Your task to perform on an android device: Clear all items from cart on target. Image 0: 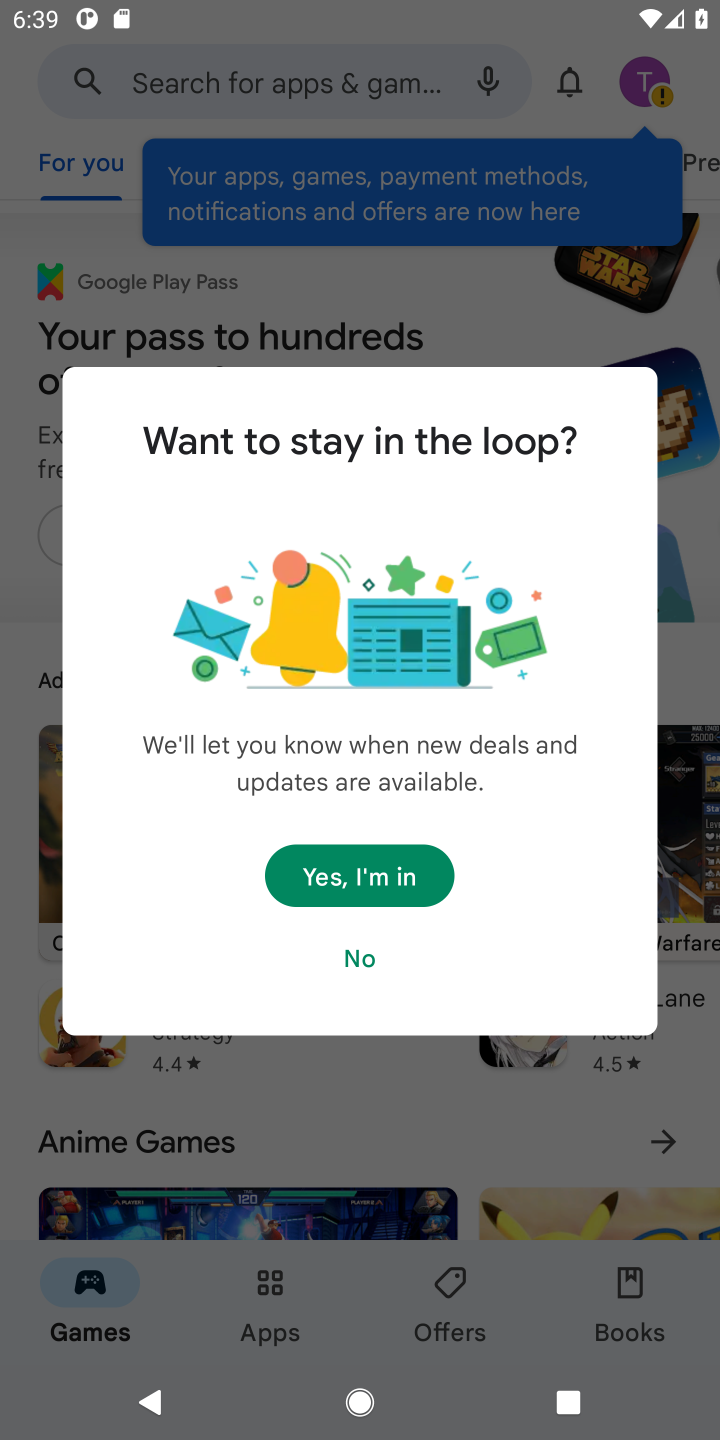
Step 0: press home button
Your task to perform on an android device: Clear all items from cart on target. Image 1: 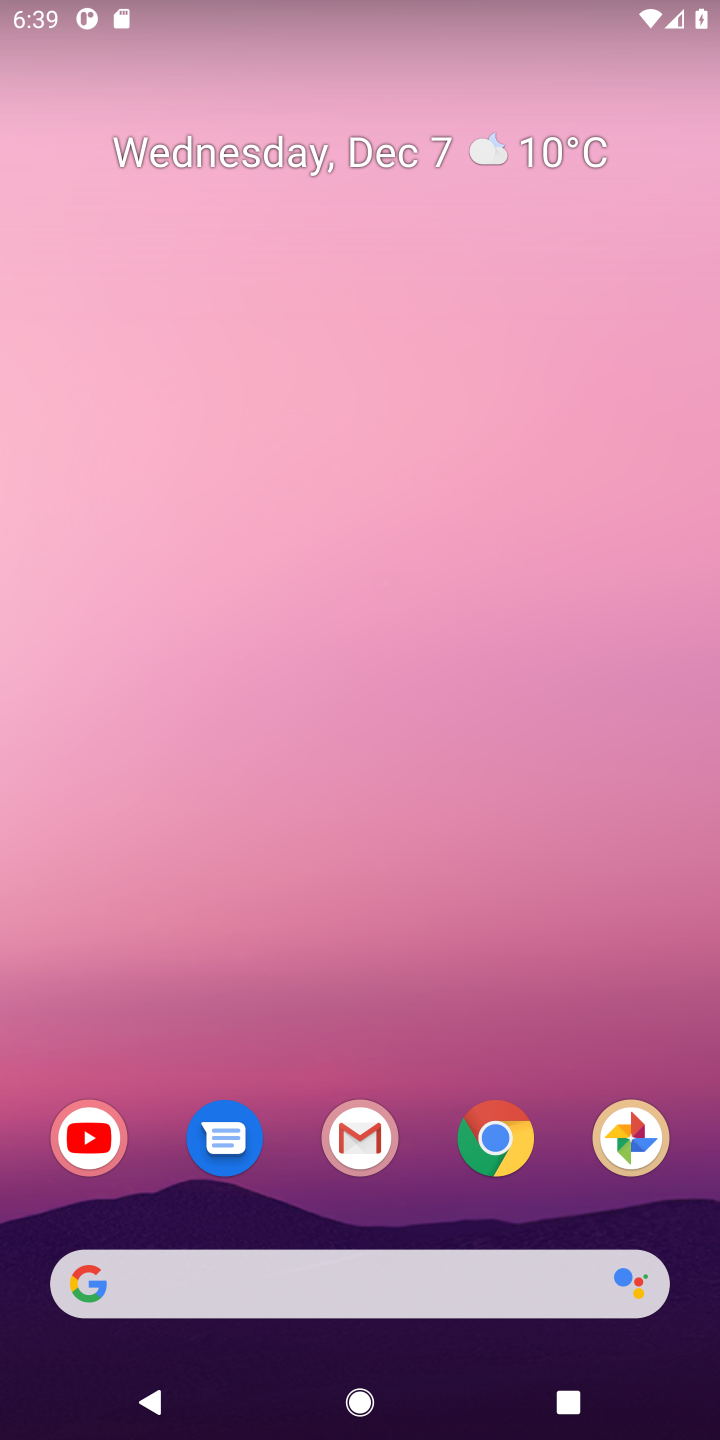
Step 1: click (175, 1280)
Your task to perform on an android device: Clear all items from cart on target. Image 2: 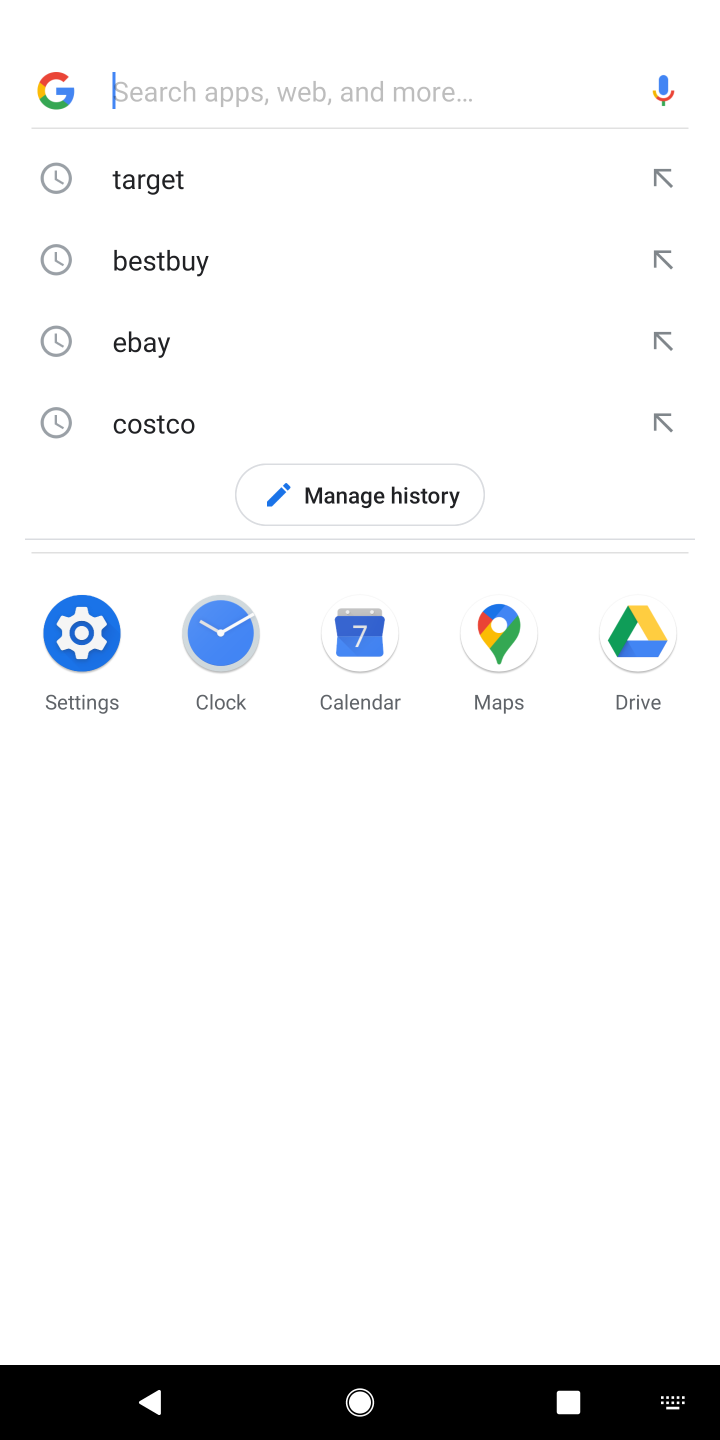
Step 2: press enter
Your task to perform on an android device: Clear all items from cart on target. Image 3: 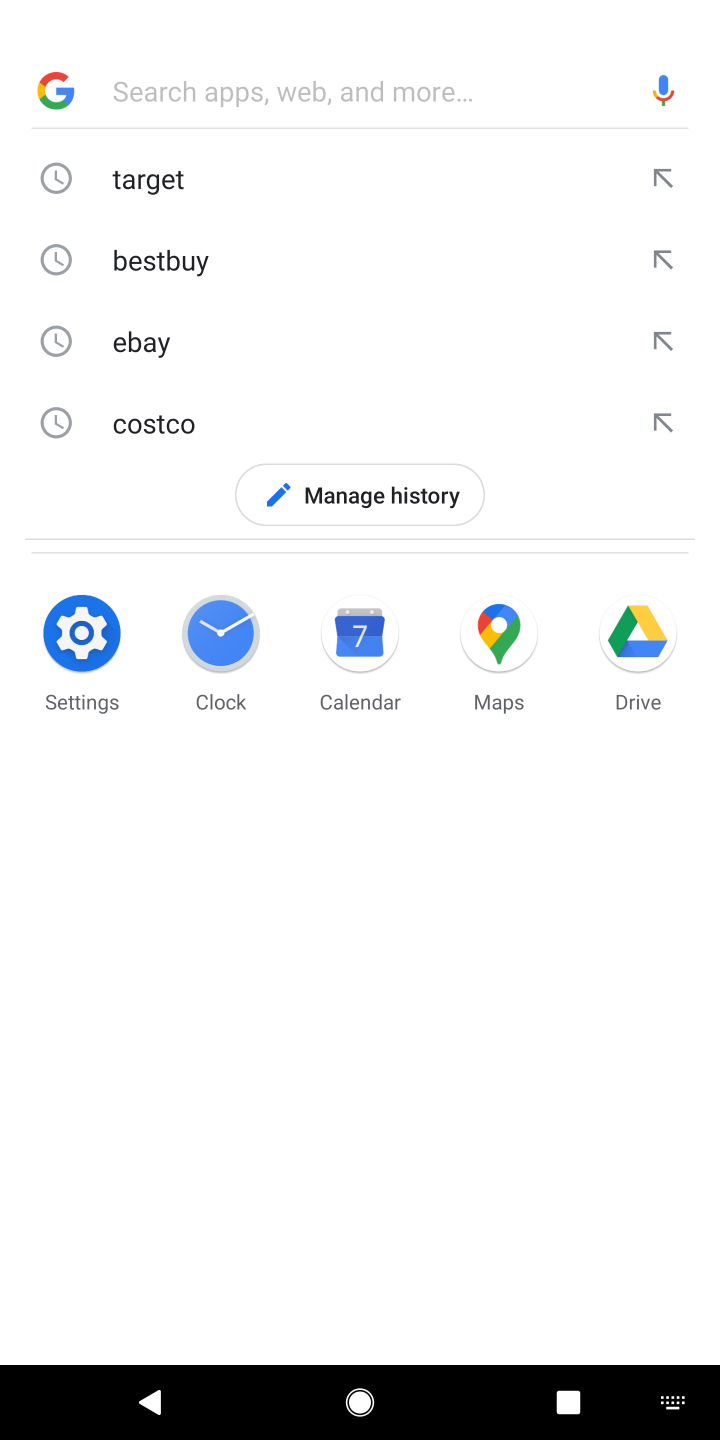
Step 3: type "target"
Your task to perform on an android device: Clear all items from cart on target. Image 4: 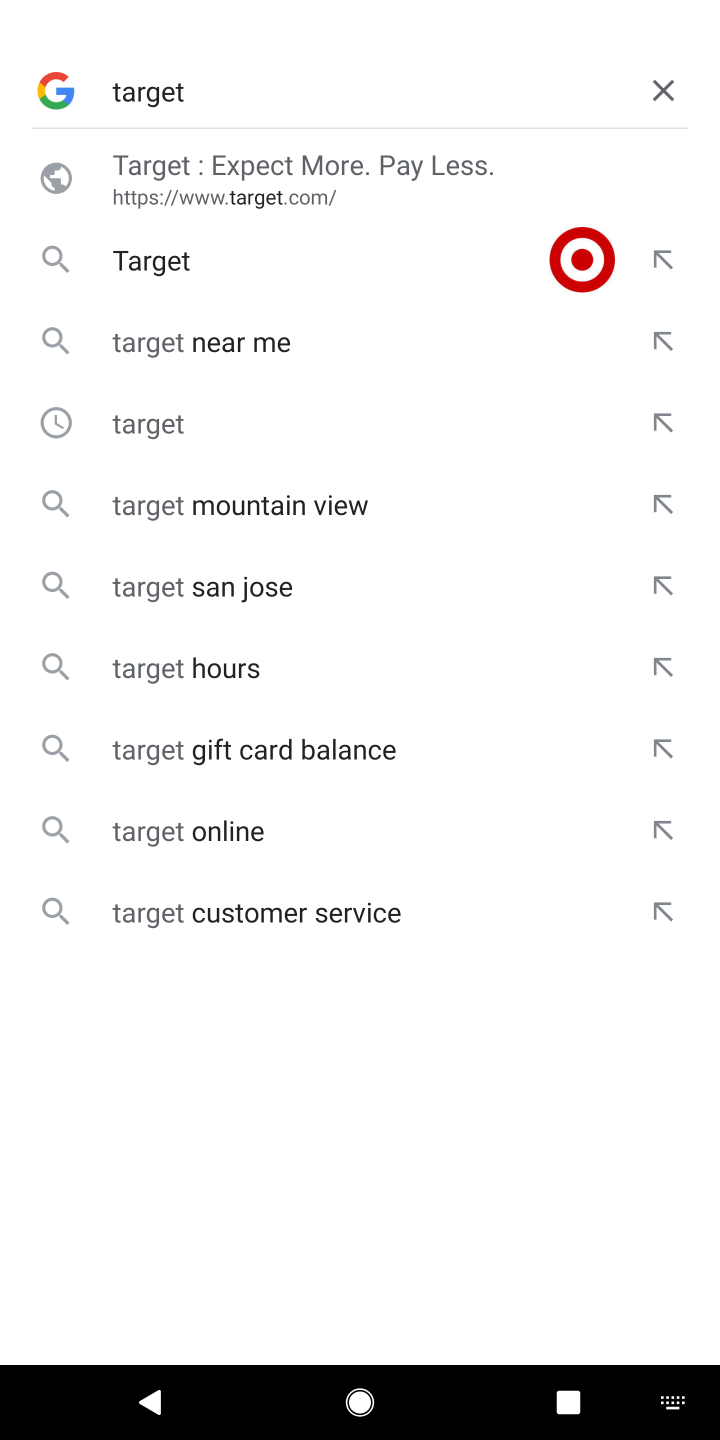
Step 4: press enter
Your task to perform on an android device: Clear all items from cart on target. Image 5: 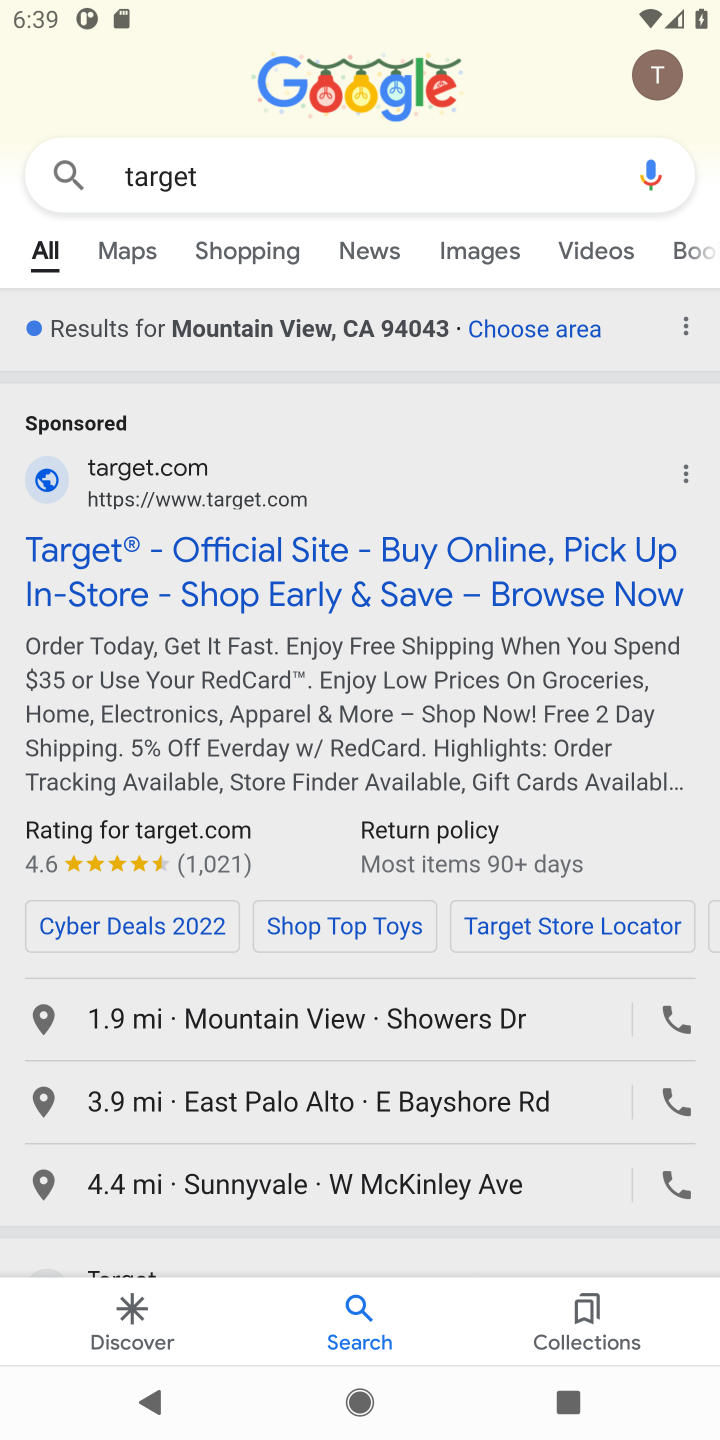
Step 5: click (483, 576)
Your task to perform on an android device: Clear all items from cart on target. Image 6: 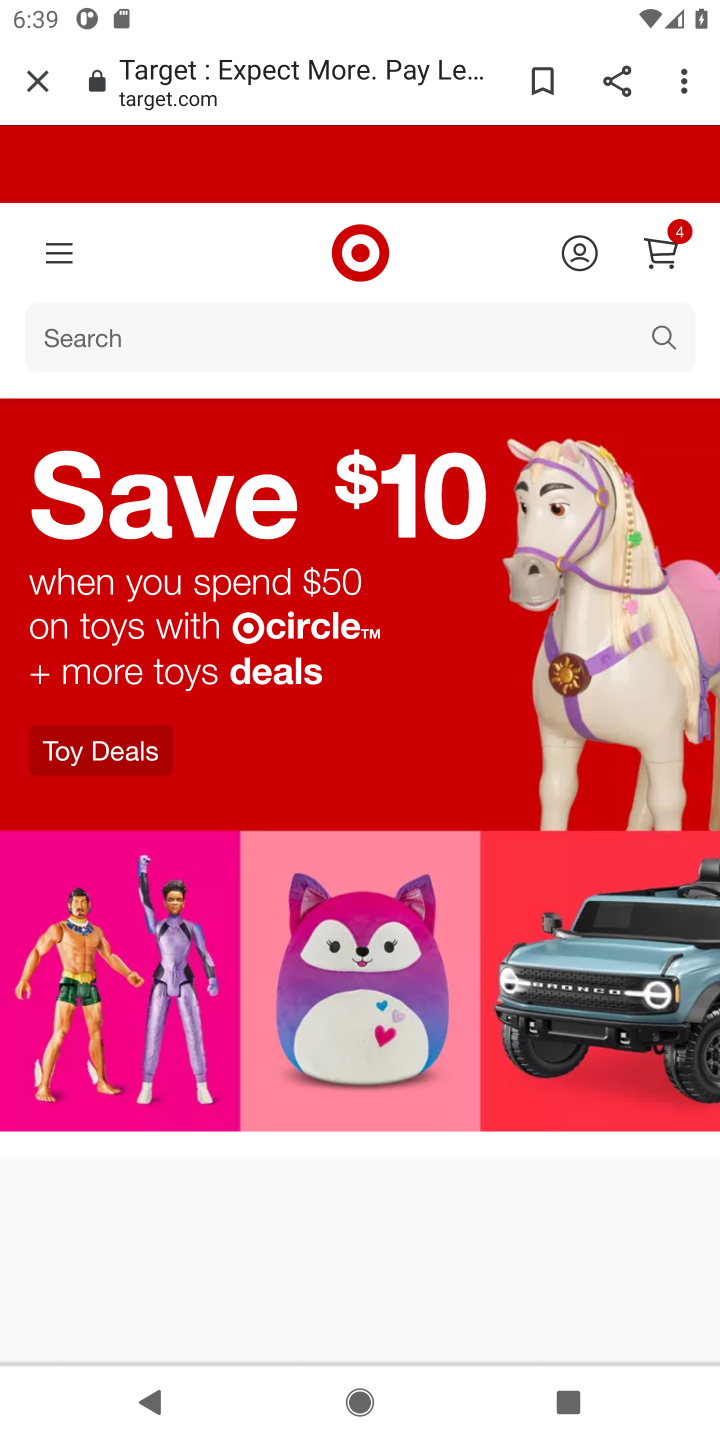
Step 6: click (658, 233)
Your task to perform on an android device: Clear all items from cart on target. Image 7: 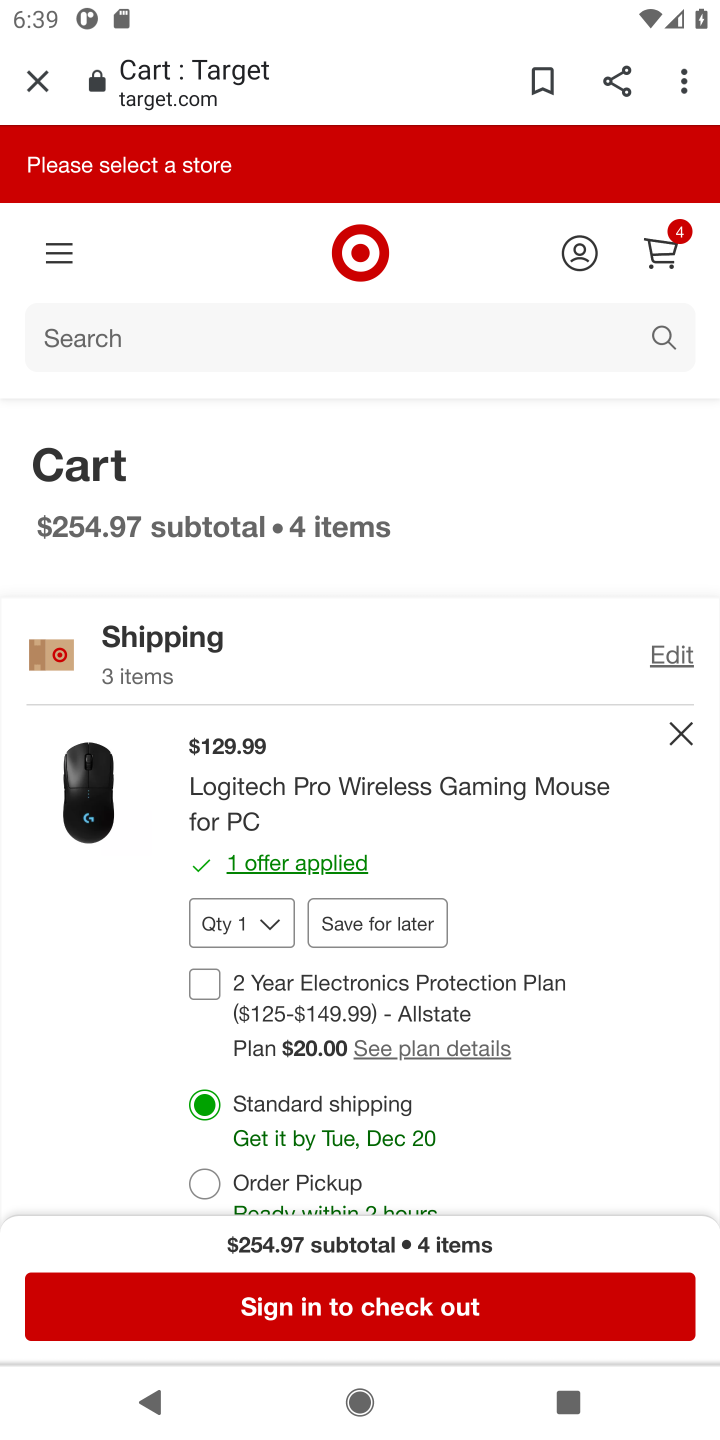
Step 7: drag from (508, 1068) to (479, 519)
Your task to perform on an android device: Clear all items from cart on target. Image 8: 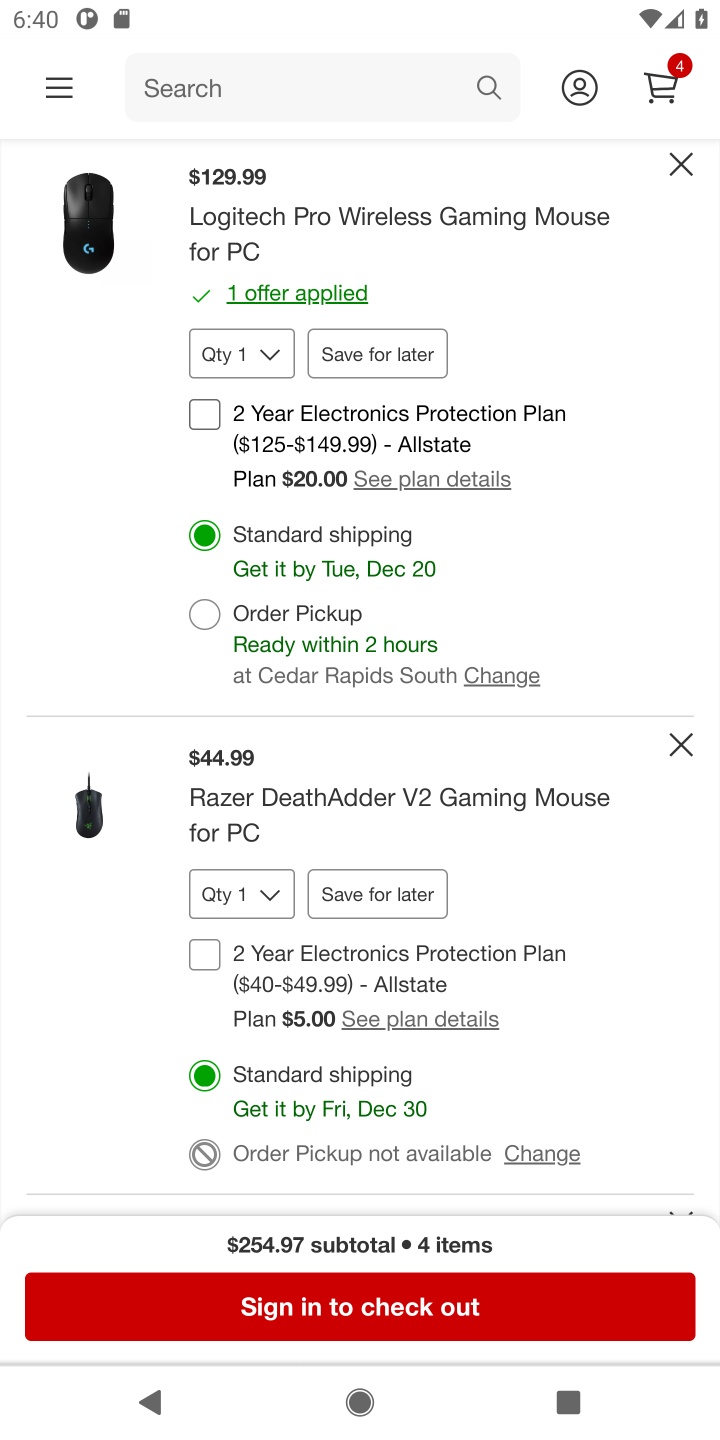
Step 8: click (685, 742)
Your task to perform on an android device: Clear all items from cart on target. Image 9: 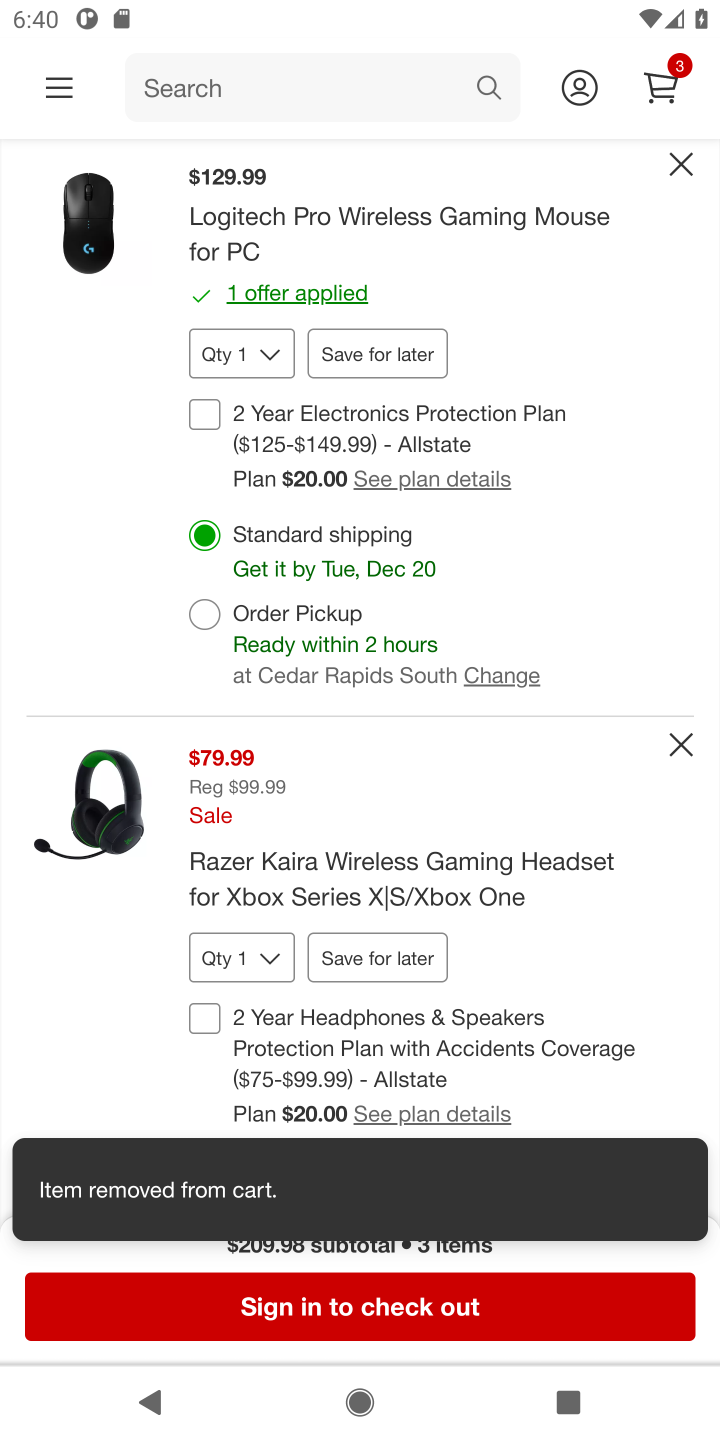
Step 9: click (673, 737)
Your task to perform on an android device: Clear all items from cart on target. Image 10: 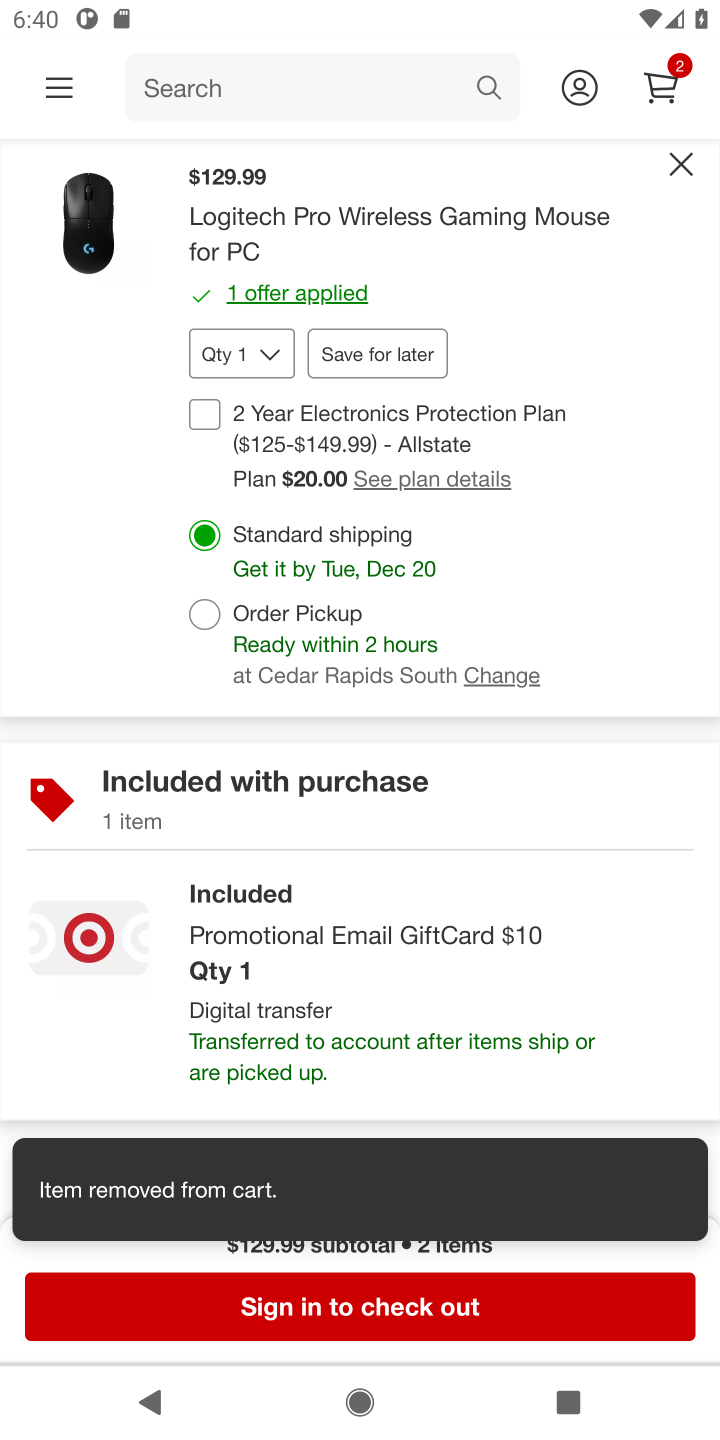
Step 10: click (674, 161)
Your task to perform on an android device: Clear all items from cart on target. Image 11: 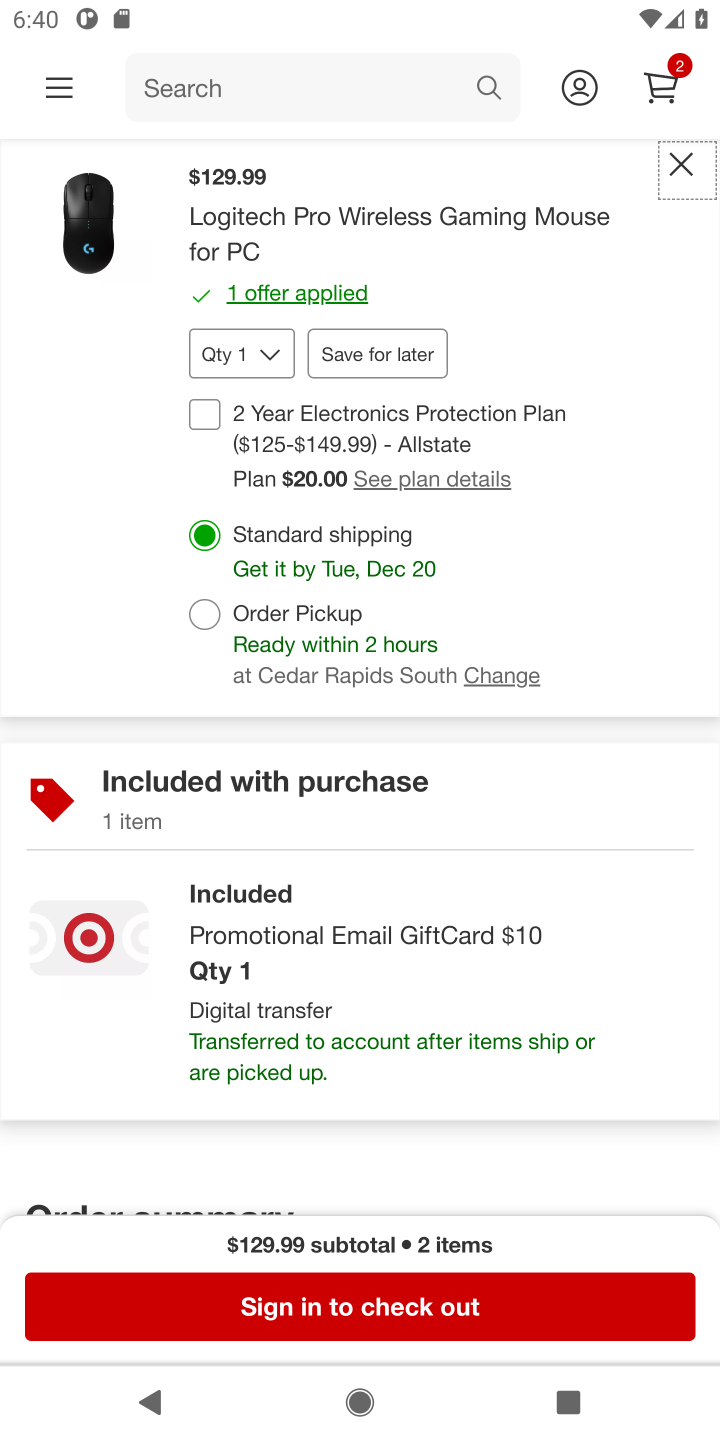
Step 11: drag from (601, 343) to (547, 981)
Your task to perform on an android device: Clear all items from cart on target. Image 12: 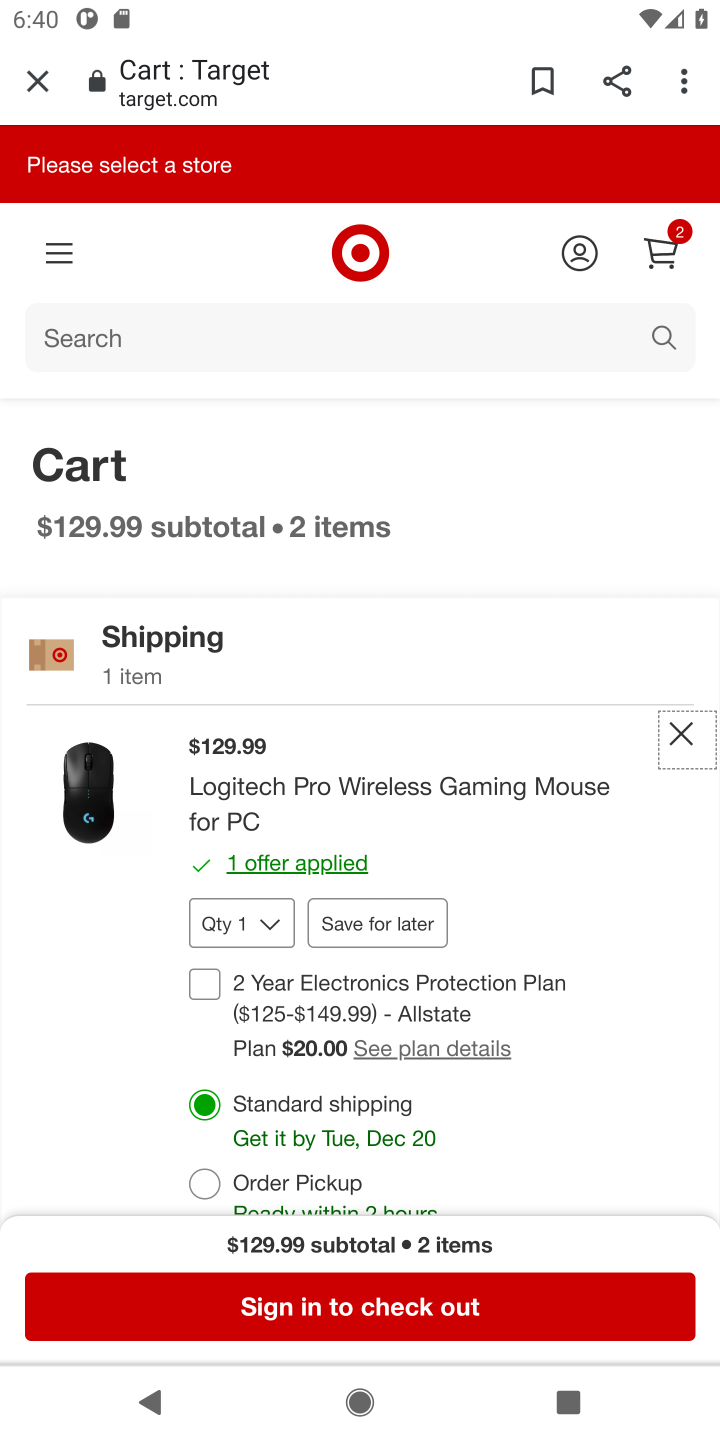
Step 12: click (680, 631)
Your task to perform on an android device: Clear all items from cart on target. Image 13: 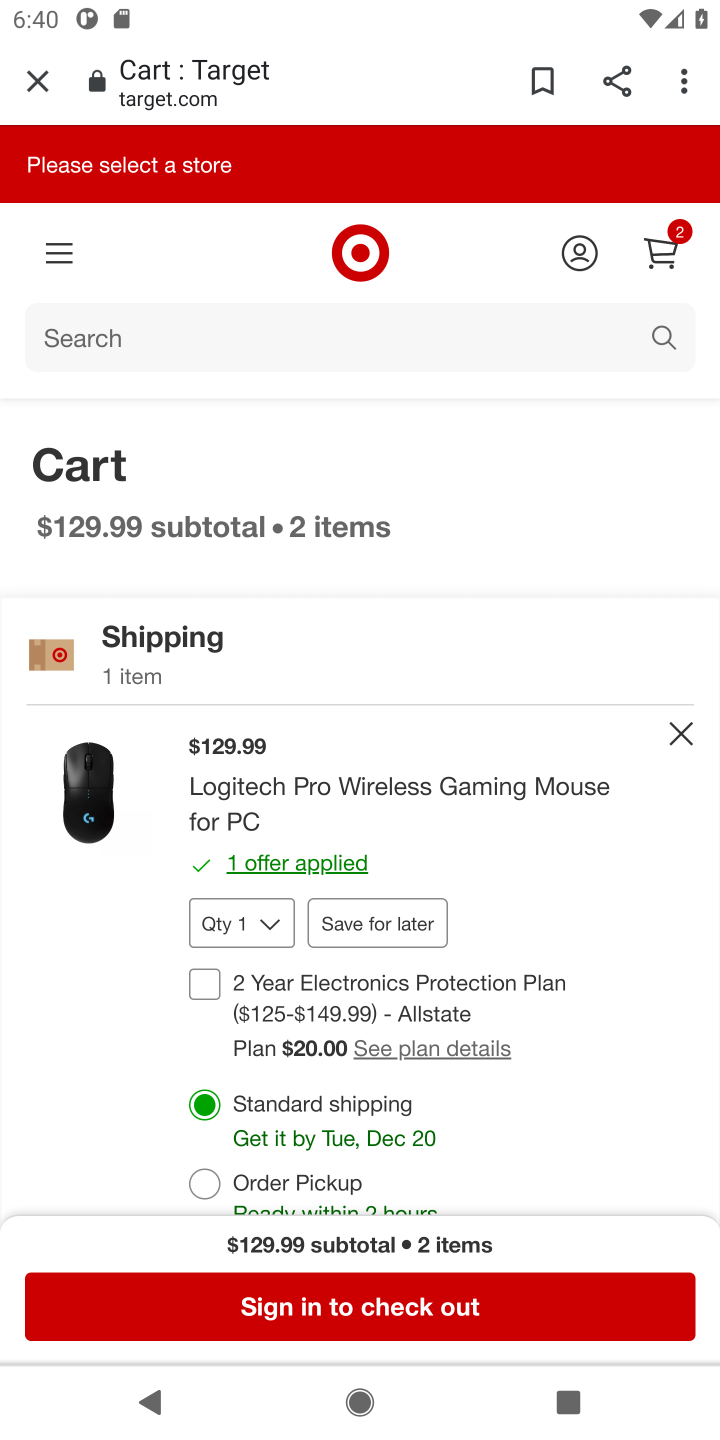
Step 13: click (671, 731)
Your task to perform on an android device: Clear all items from cart on target. Image 14: 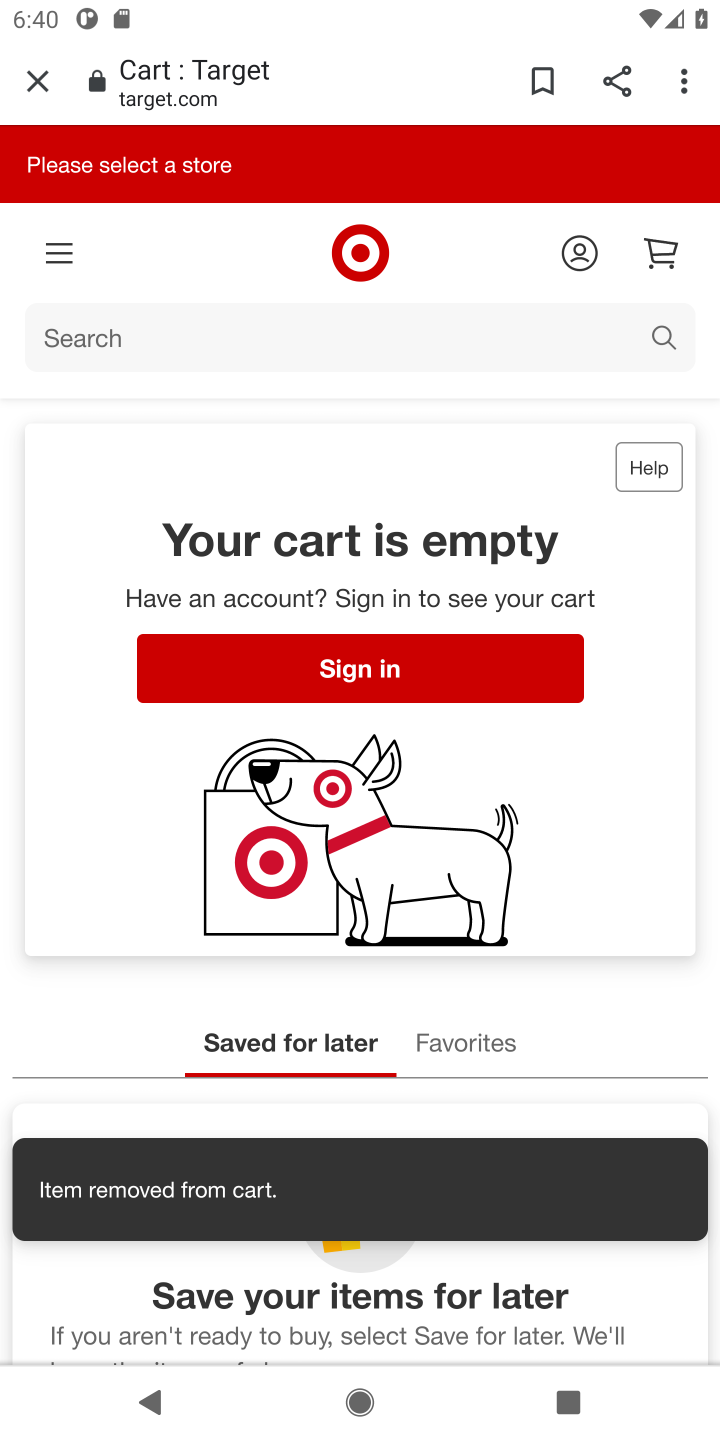
Step 14: task complete